Your task to perform on an android device: Go to settings Image 0: 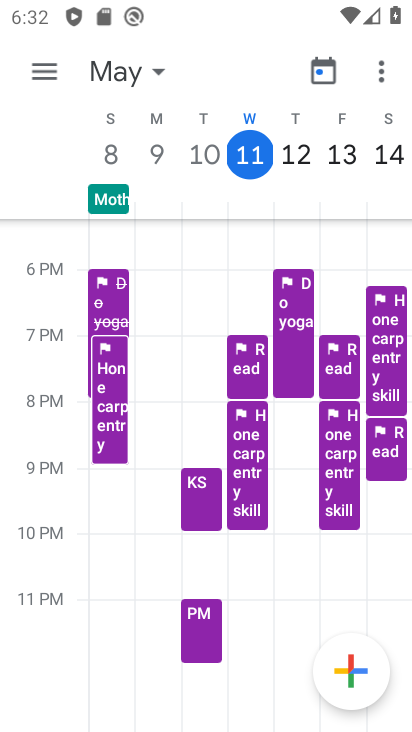
Step 0: press home button
Your task to perform on an android device: Go to settings Image 1: 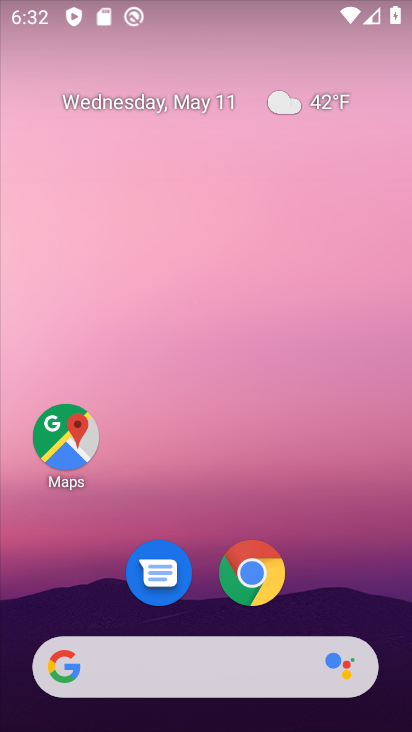
Step 1: click (326, 86)
Your task to perform on an android device: Go to settings Image 2: 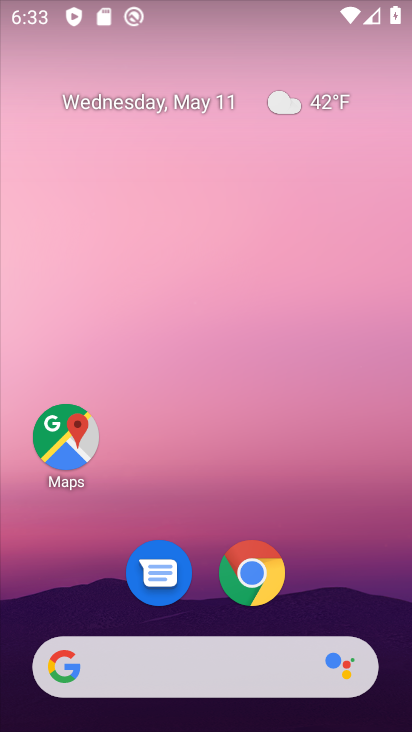
Step 2: drag from (331, 604) to (292, 139)
Your task to perform on an android device: Go to settings Image 3: 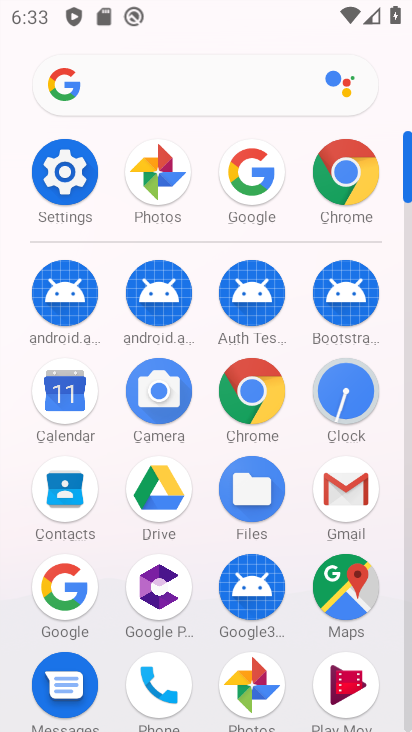
Step 3: click (72, 195)
Your task to perform on an android device: Go to settings Image 4: 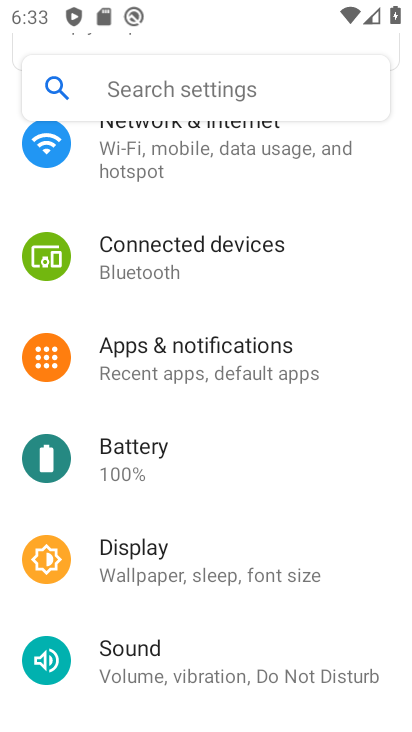
Step 4: task complete